Your task to perform on an android device: How much does a 2 bedroom apartment rent for in New York? Image 0: 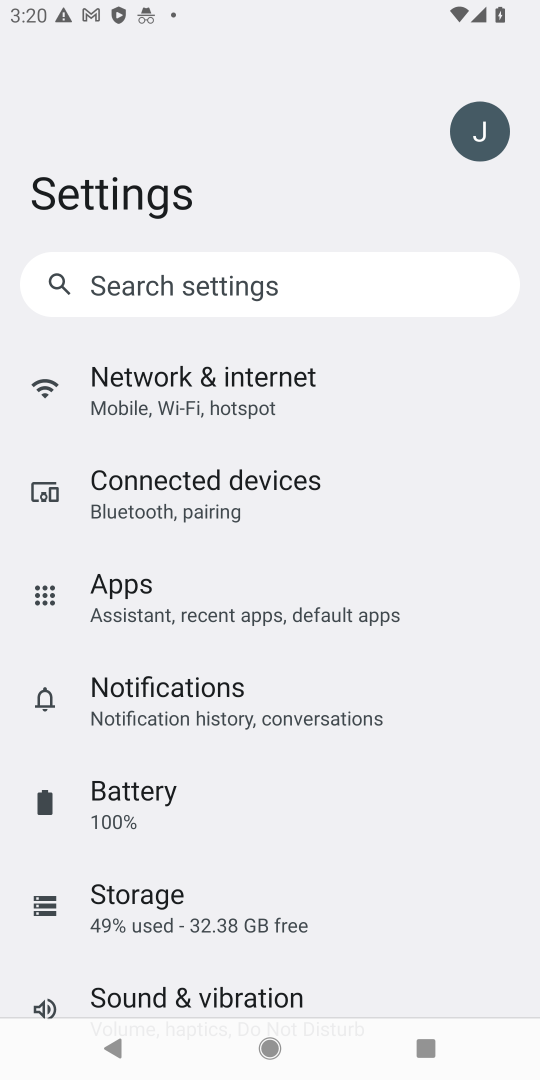
Step 0: press home button
Your task to perform on an android device: How much does a 2 bedroom apartment rent for in New York? Image 1: 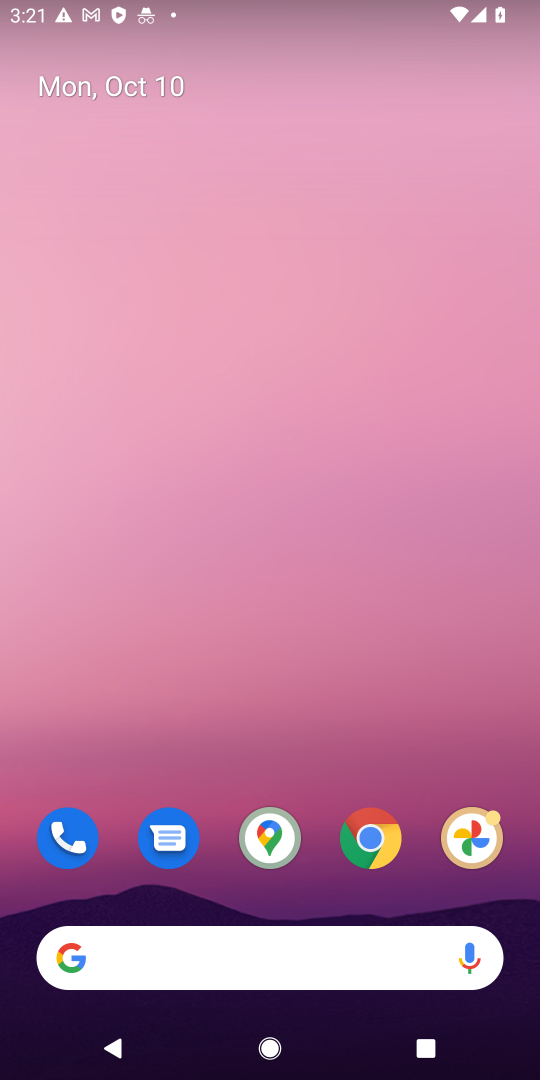
Step 1: click (375, 843)
Your task to perform on an android device: How much does a 2 bedroom apartment rent for in New York? Image 2: 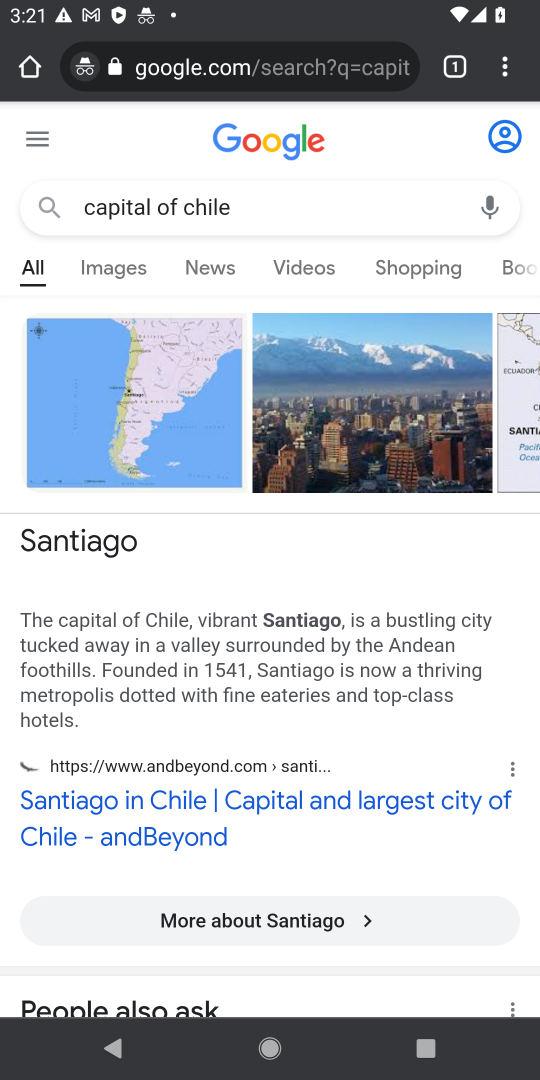
Step 2: click (297, 72)
Your task to perform on an android device: How much does a 2 bedroom apartment rent for in New York? Image 3: 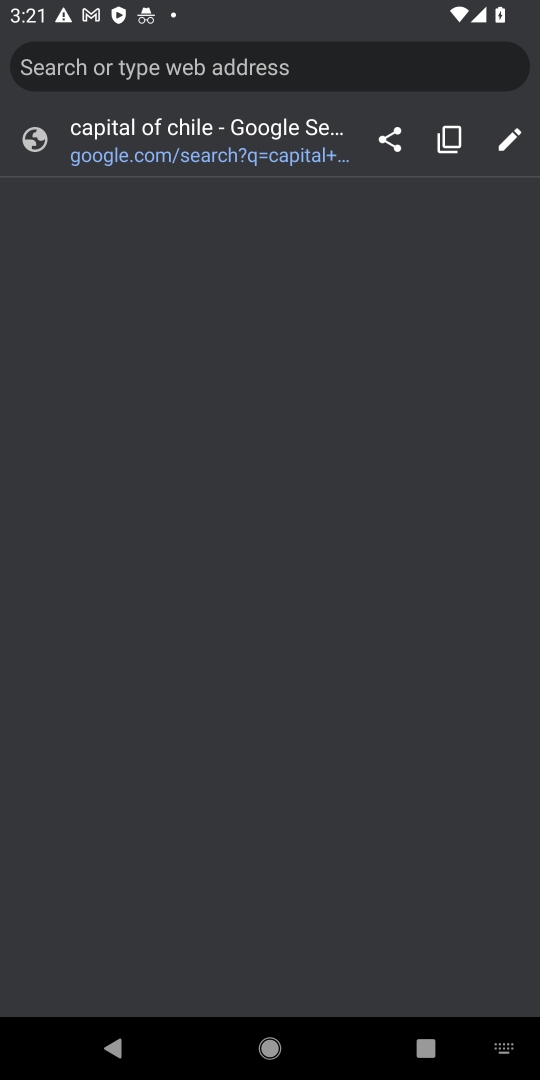
Step 3: type "How much does a 2 bedroom apartment rent for in New York?"
Your task to perform on an android device: How much does a 2 bedroom apartment rent for in New York? Image 4: 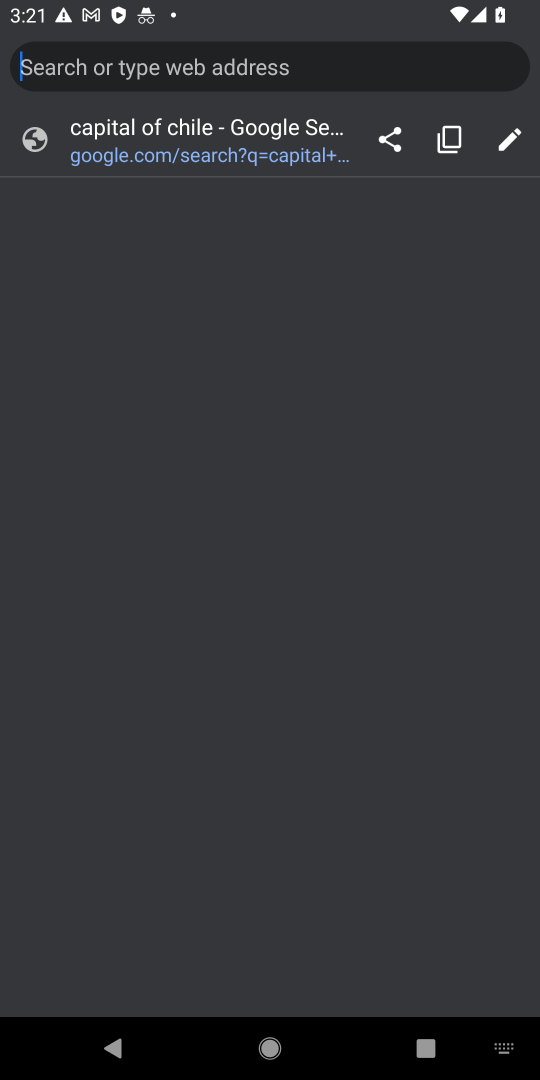
Step 4: drag from (223, 67) to (417, 73)
Your task to perform on an android device: How much does a 2 bedroom apartment rent for in New York? Image 5: 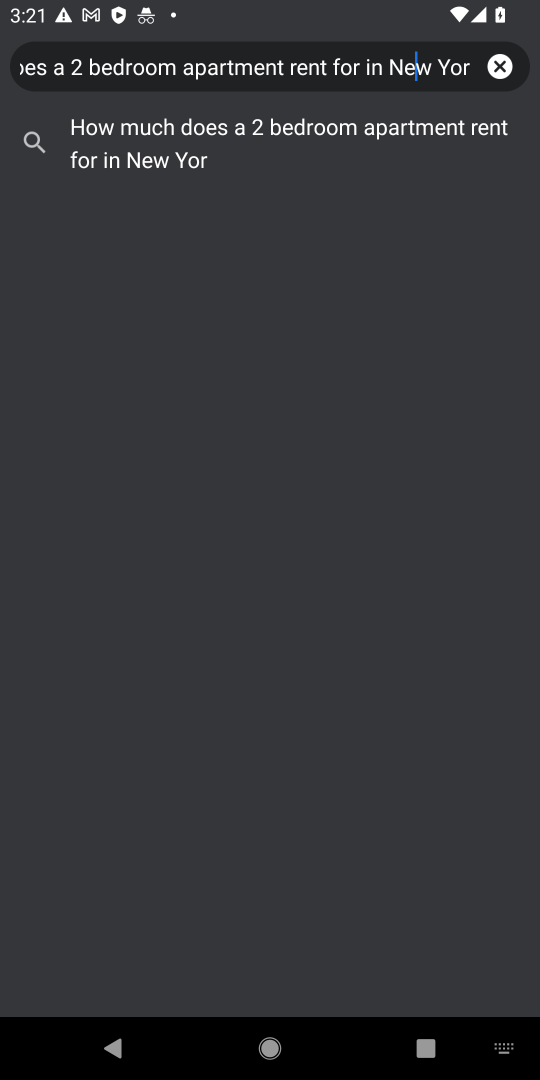
Step 5: click (313, 124)
Your task to perform on an android device: How much does a 2 bedroom apartment rent for in New York? Image 6: 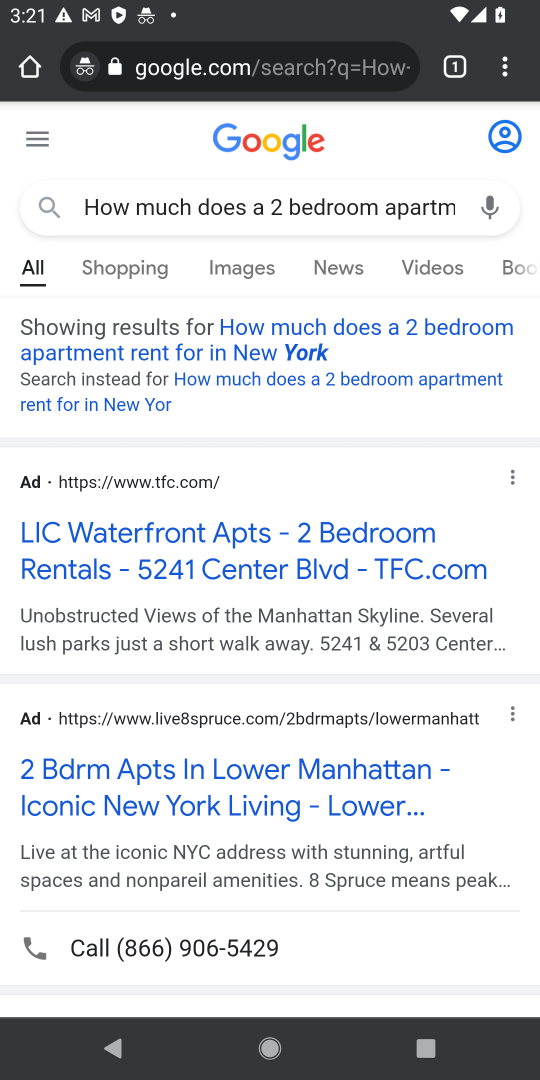
Step 6: drag from (403, 675) to (422, 860)
Your task to perform on an android device: How much does a 2 bedroom apartment rent for in New York? Image 7: 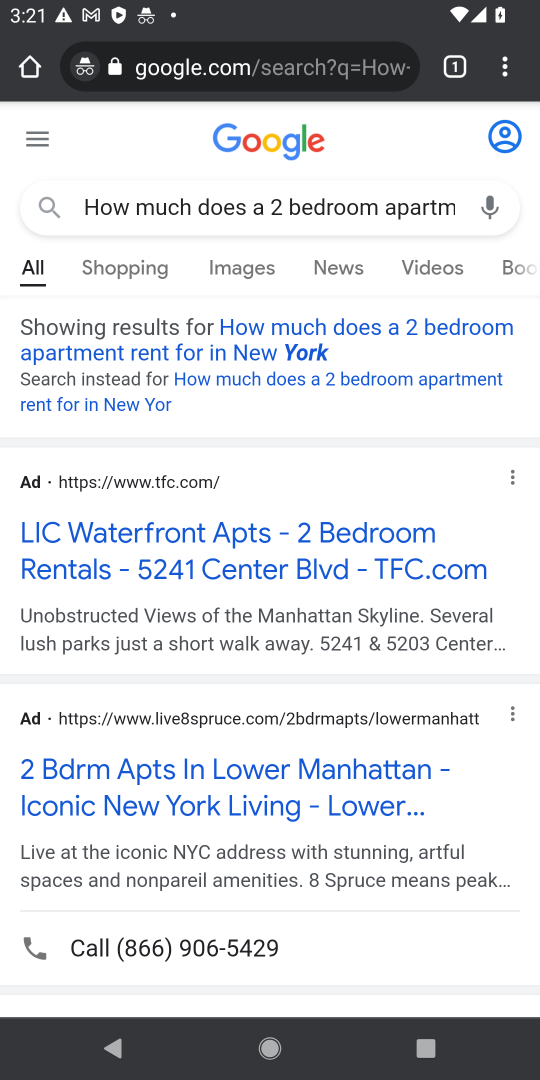
Step 7: drag from (422, 860) to (422, 173)
Your task to perform on an android device: How much does a 2 bedroom apartment rent for in New York? Image 8: 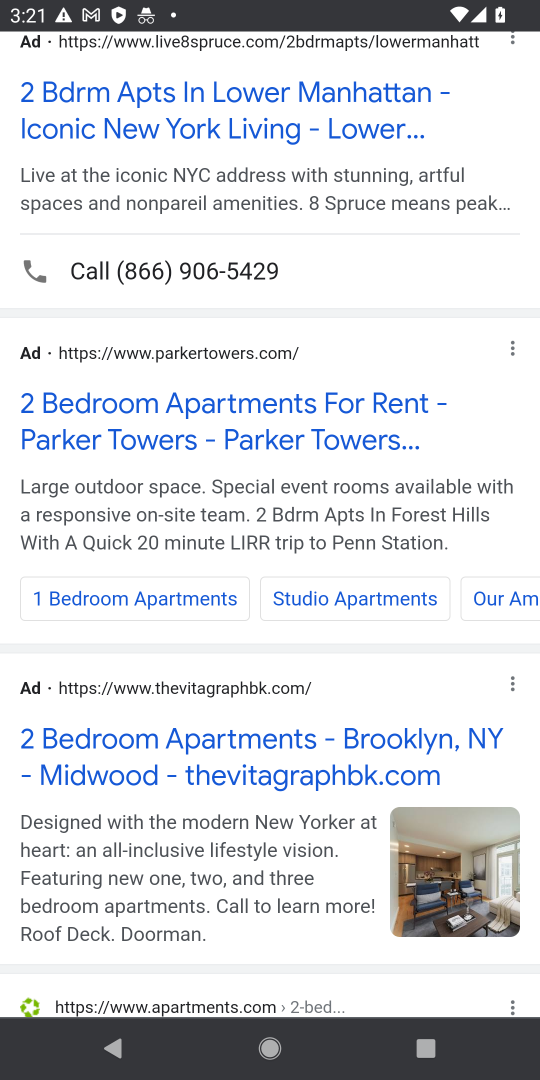
Step 8: click (144, 419)
Your task to perform on an android device: How much does a 2 bedroom apartment rent for in New York? Image 9: 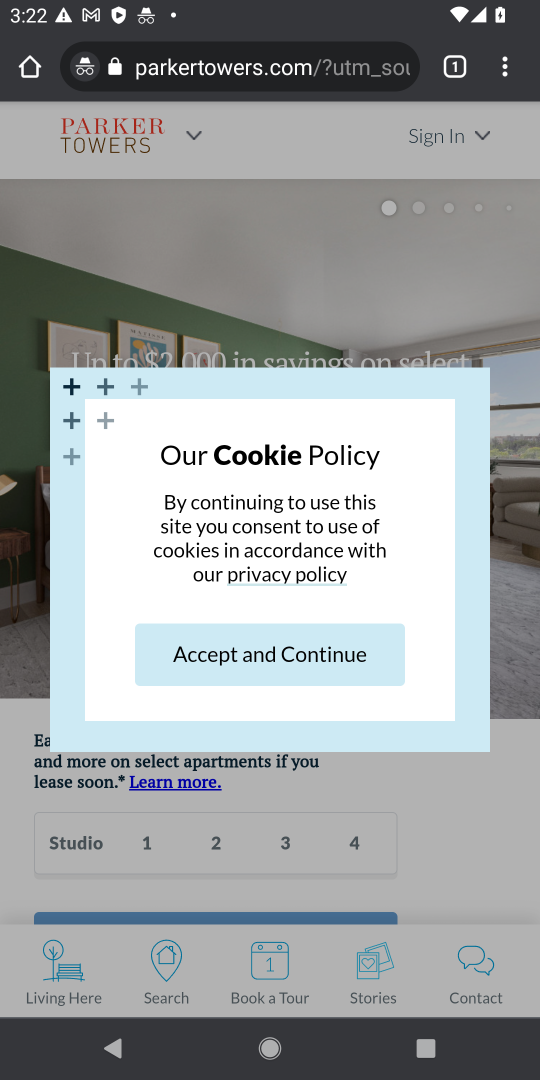
Step 9: task complete